Your task to perform on an android device: Open calendar and show me the third week of next month Image 0: 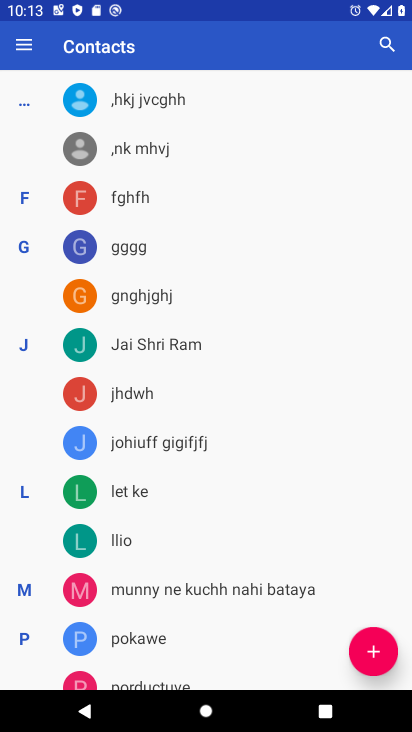
Step 0: press home button
Your task to perform on an android device: Open calendar and show me the third week of next month Image 1: 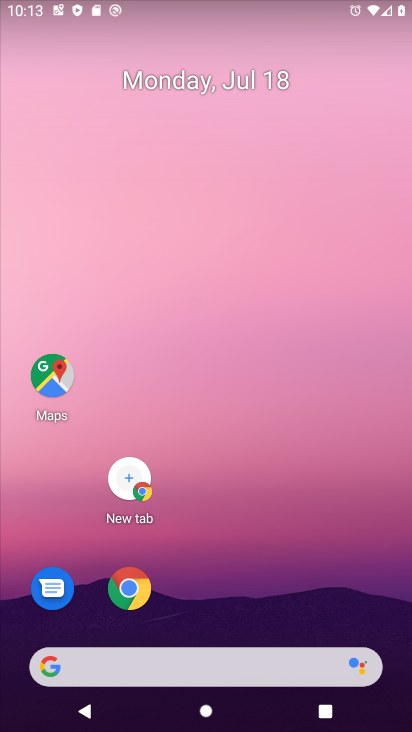
Step 1: click (209, 74)
Your task to perform on an android device: Open calendar and show me the third week of next month Image 2: 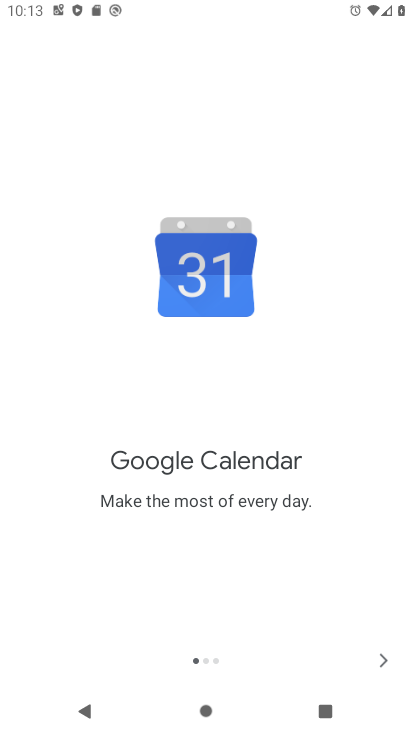
Step 2: click (392, 664)
Your task to perform on an android device: Open calendar and show me the third week of next month Image 3: 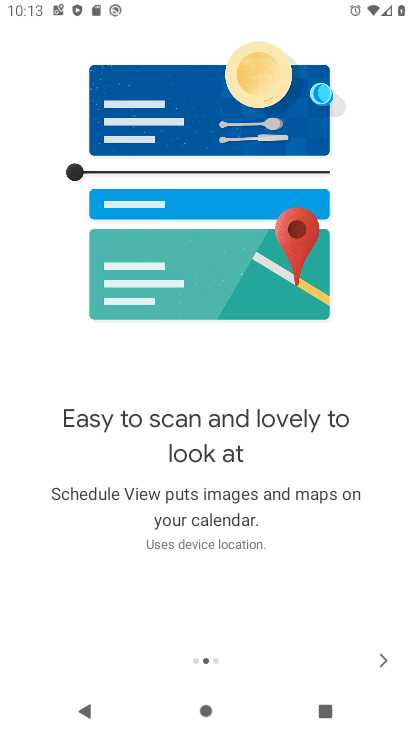
Step 3: click (392, 664)
Your task to perform on an android device: Open calendar and show me the third week of next month Image 4: 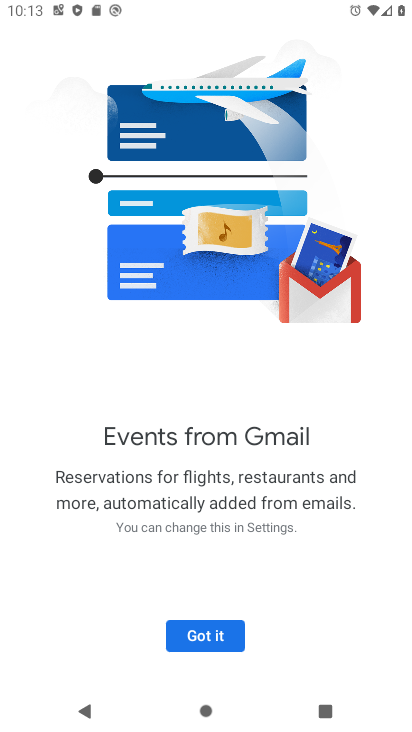
Step 4: click (195, 644)
Your task to perform on an android device: Open calendar and show me the third week of next month Image 5: 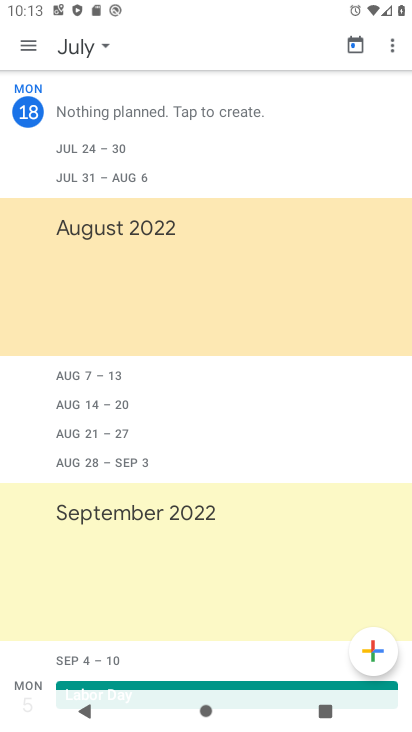
Step 5: click (87, 41)
Your task to perform on an android device: Open calendar and show me the third week of next month Image 6: 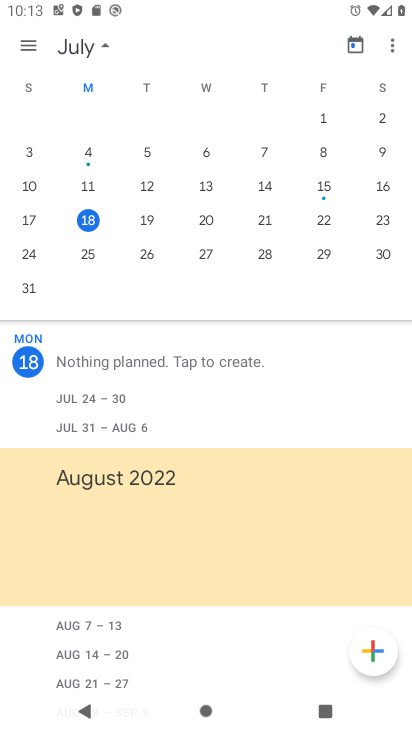
Step 6: drag from (383, 267) to (79, 265)
Your task to perform on an android device: Open calendar and show me the third week of next month Image 7: 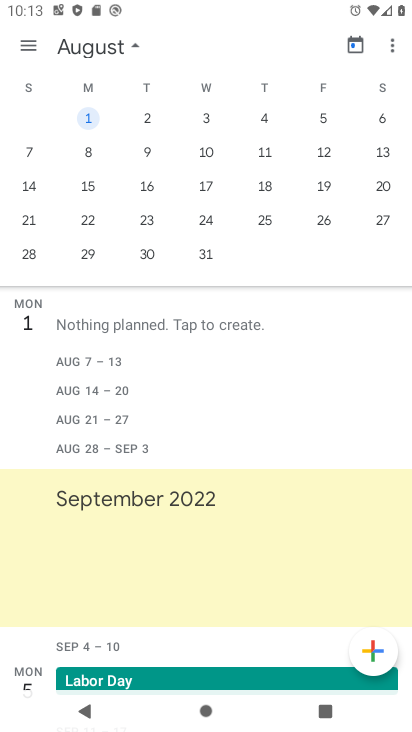
Step 7: click (100, 190)
Your task to perform on an android device: Open calendar and show me the third week of next month Image 8: 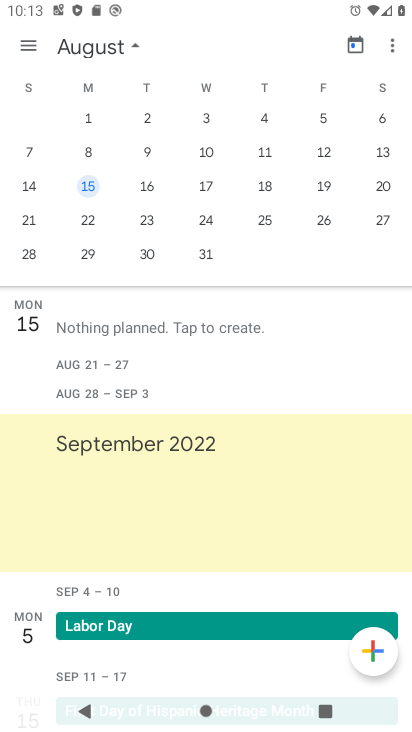
Step 8: task complete